Your task to perform on an android device: turn off improve location accuracy Image 0: 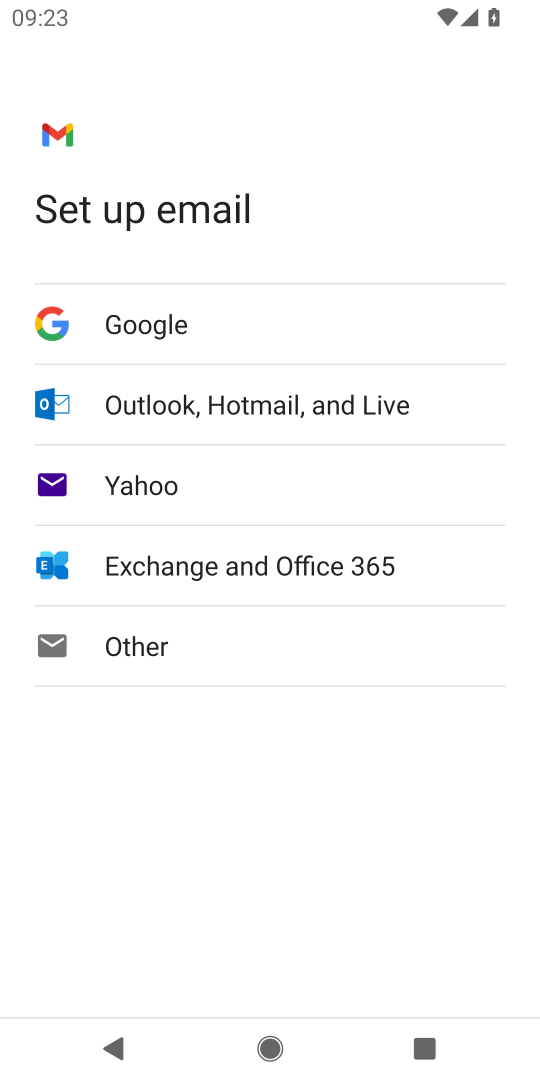
Step 0: press home button
Your task to perform on an android device: turn off improve location accuracy Image 1: 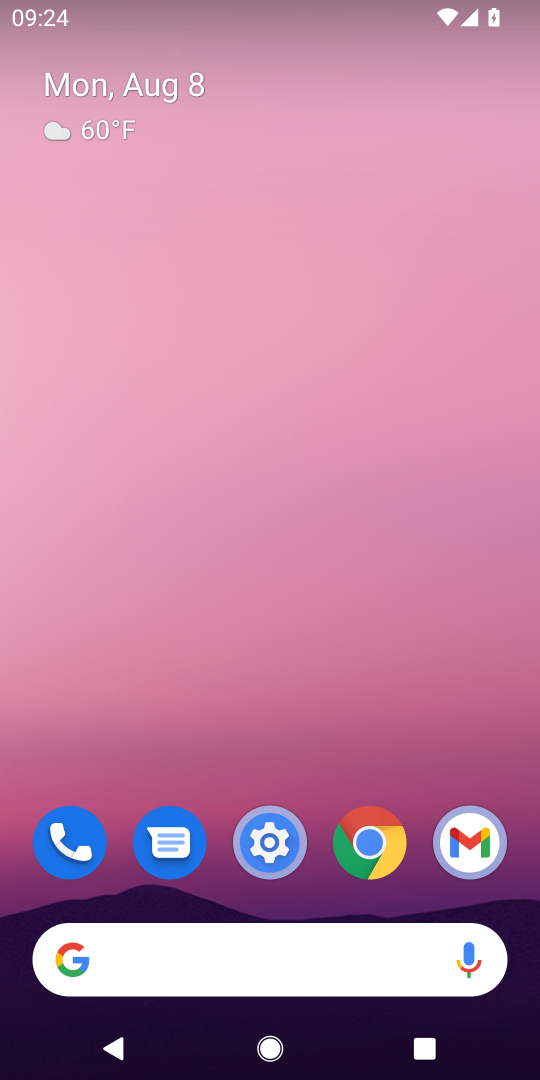
Step 1: click (255, 831)
Your task to perform on an android device: turn off improve location accuracy Image 2: 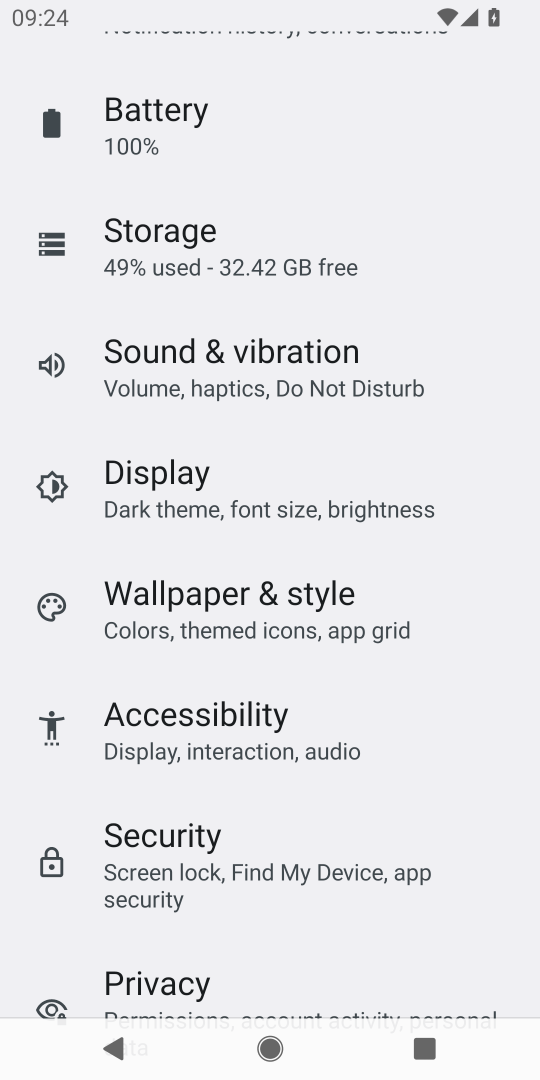
Step 2: drag from (261, 931) to (269, 253)
Your task to perform on an android device: turn off improve location accuracy Image 3: 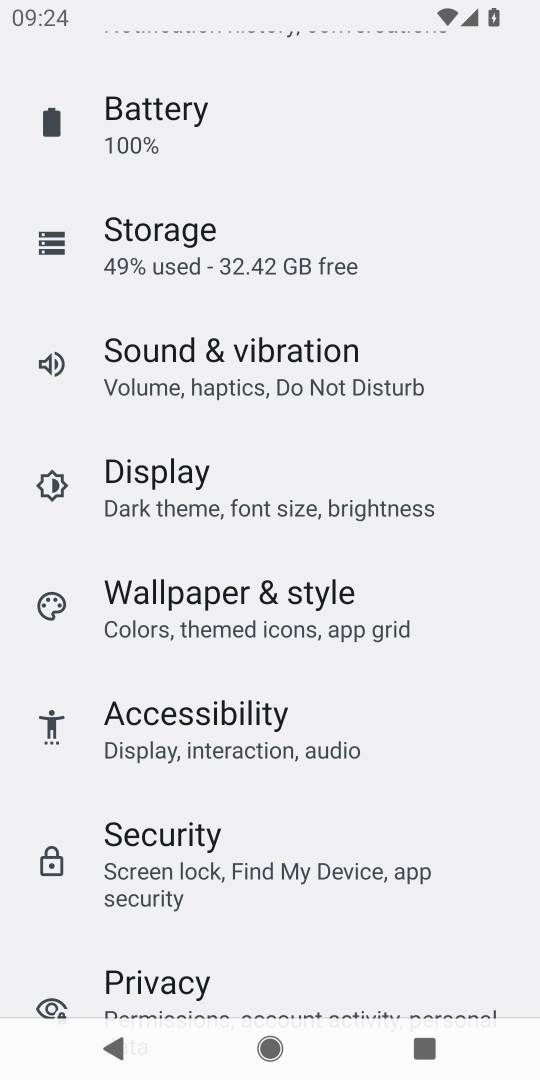
Step 3: drag from (247, 839) to (251, 406)
Your task to perform on an android device: turn off improve location accuracy Image 4: 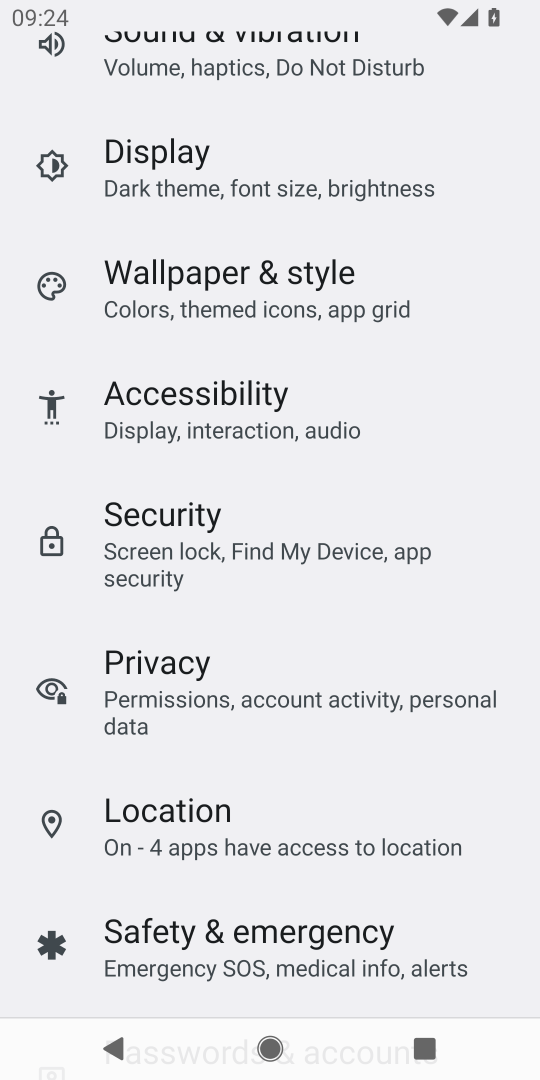
Step 4: click (220, 814)
Your task to perform on an android device: turn off improve location accuracy Image 5: 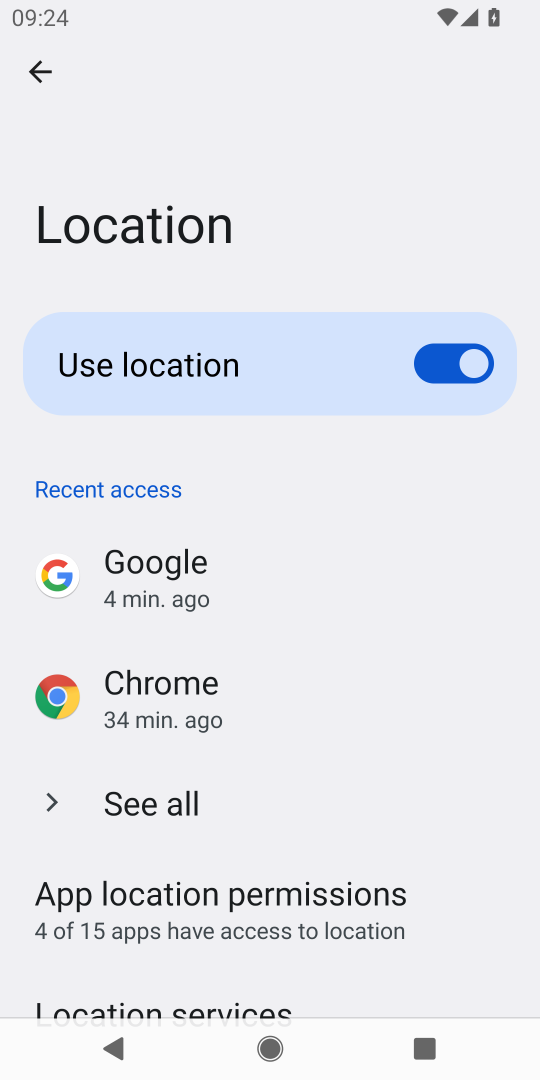
Step 5: drag from (250, 850) to (238, 166)
Your task to perform on an android device: turn off improve location accuracy Image 6: 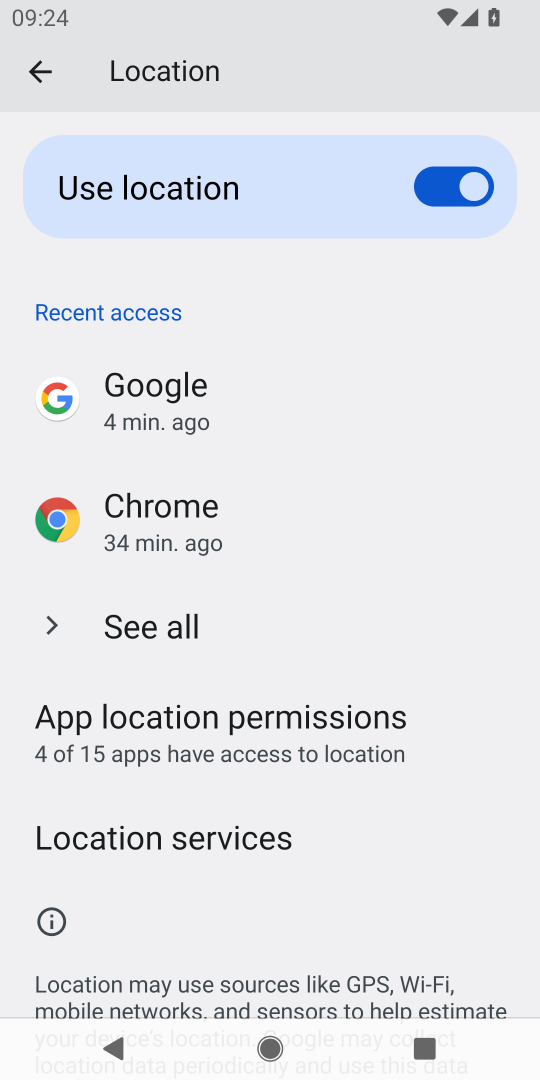
Step 6: click (285, 841)
Your task to perform on an android device: turn off improve location accuracy Image 7: 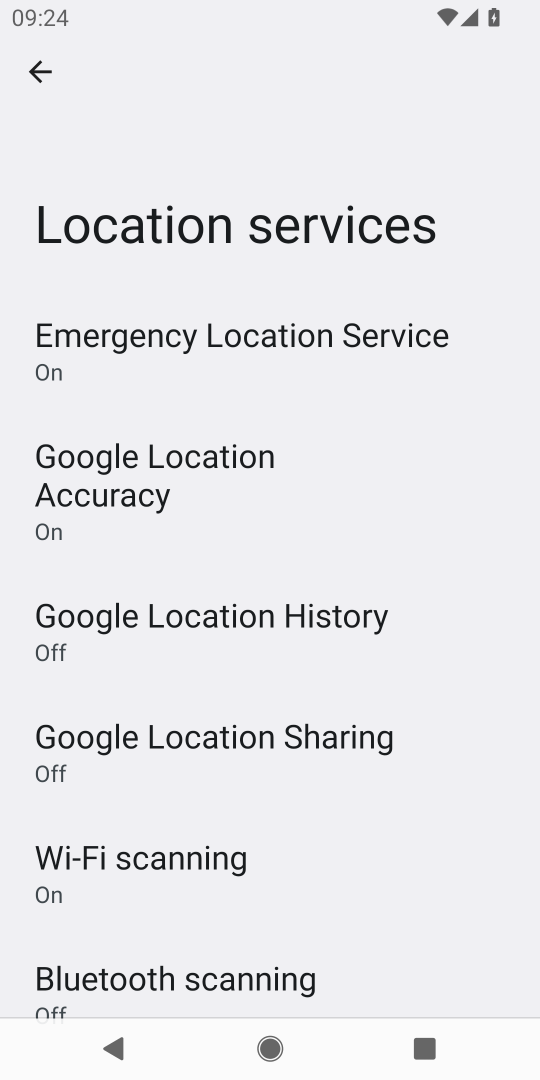
Step 7: click (186, 446)
Your task to perform on an android device: turn off improve location accuracy Image 8: 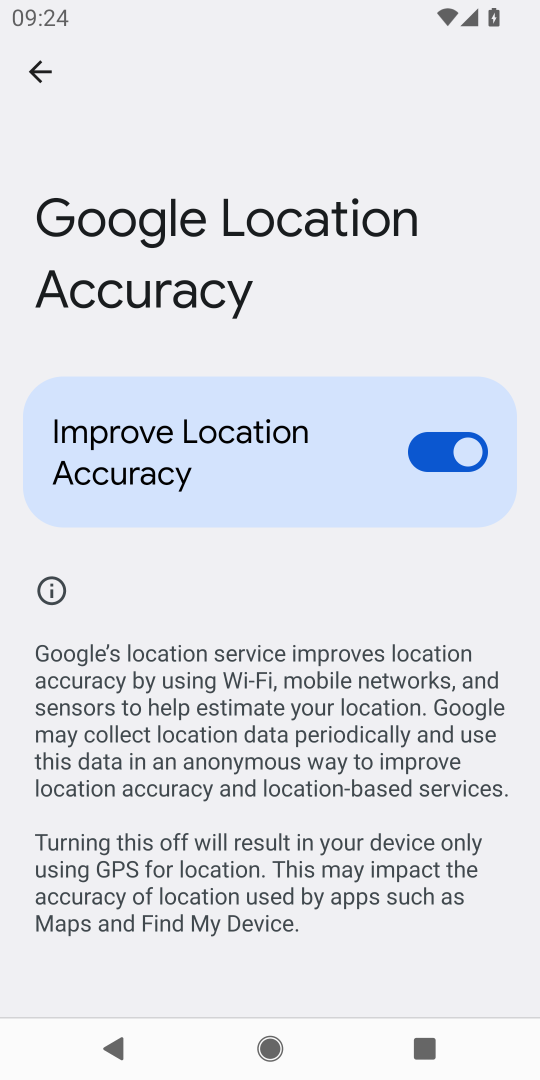
Step 8: click (466, 446)
Your task to perform on an android device: turn off improve location accuracy Image 9: 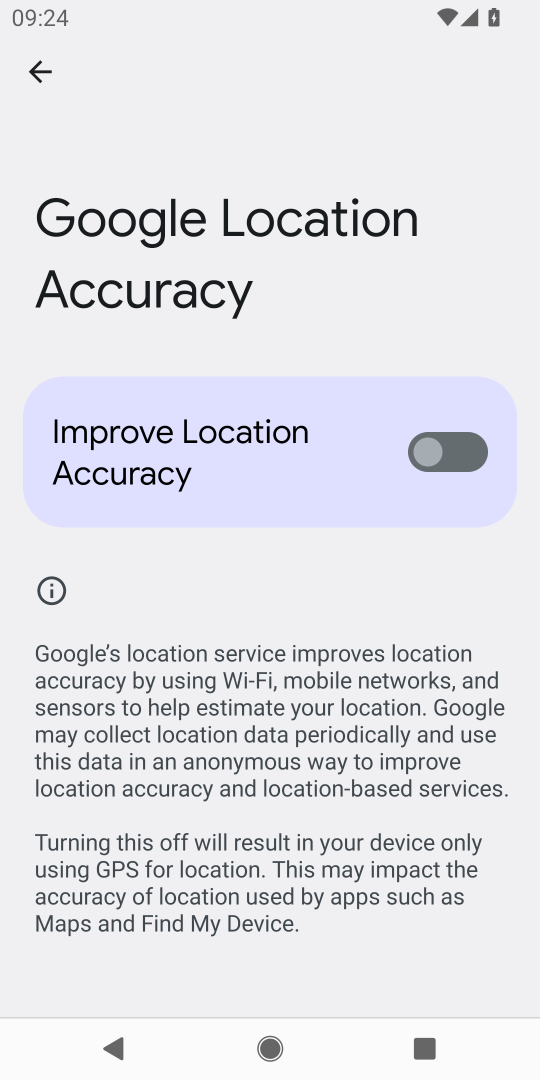
Step 9: task complete